Your task to perform on an android device: install app "Google Find My Device" Image 0: 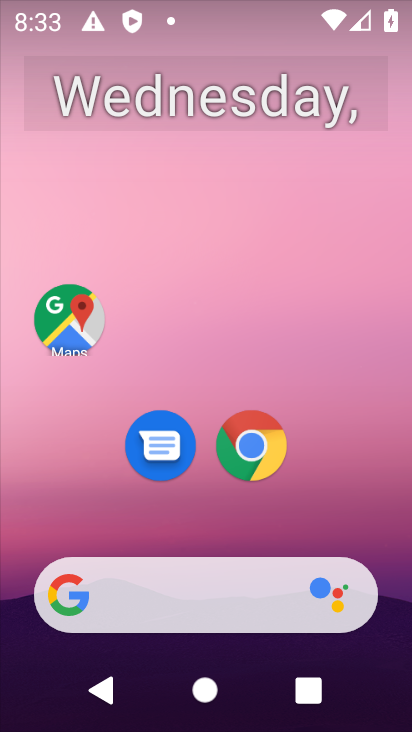
Step 0: drag from (157, 587) to (206, 161)
Your task to perform on an android device: install app "Google Find My Device" Image 1: 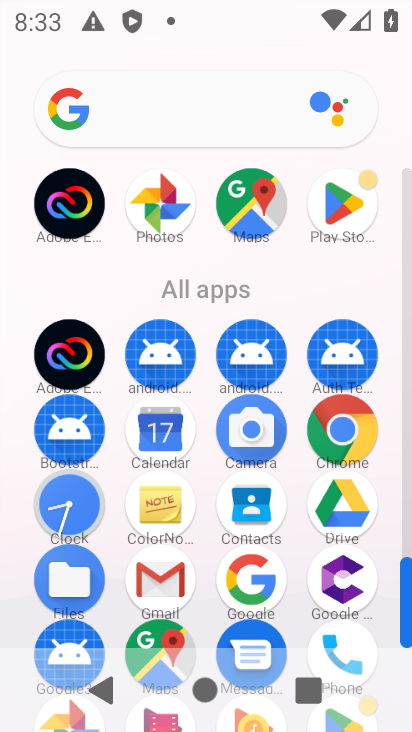
Step 1: click (351, 202)
Your task to perform on an android device: install app "Google Find My Device" Image 2: 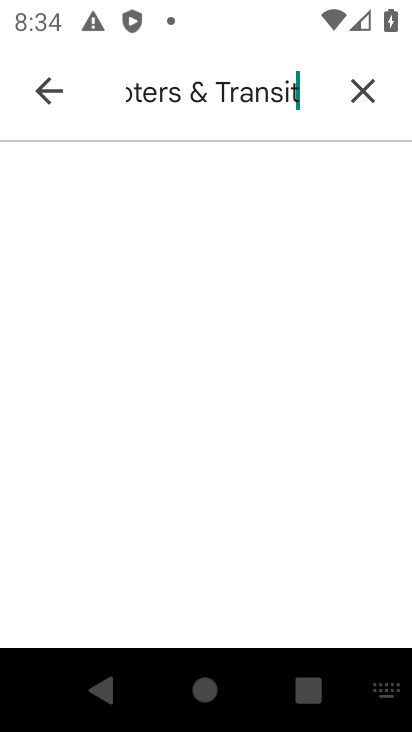
Step 2: click (366, 98)
Your task to perform on an android device: install app "Google Find My Device" Image 3: 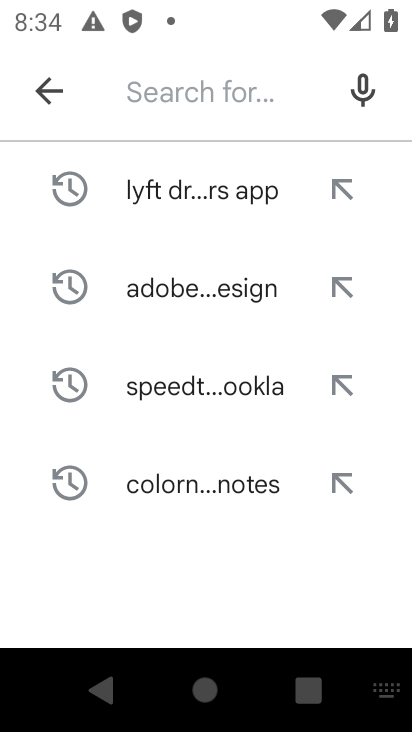
Step 3: click (216, 112)
Your task to perform on an android device: install app "Google Find My Device" Image 4: 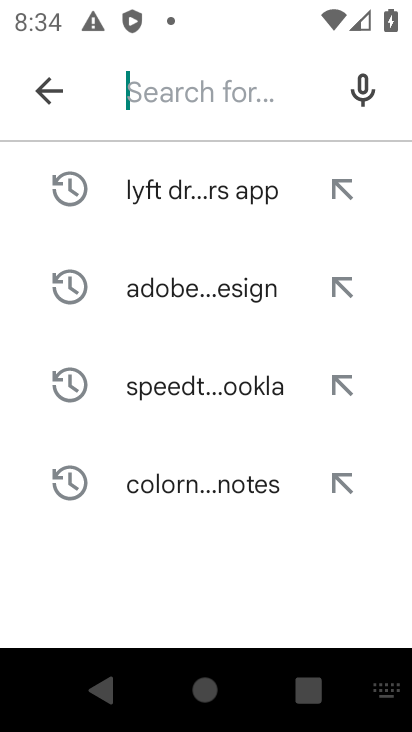
Step 4: type "Google Find My Device"
Your task to perform on an android device: install app "Google Find My Device" Image 5: 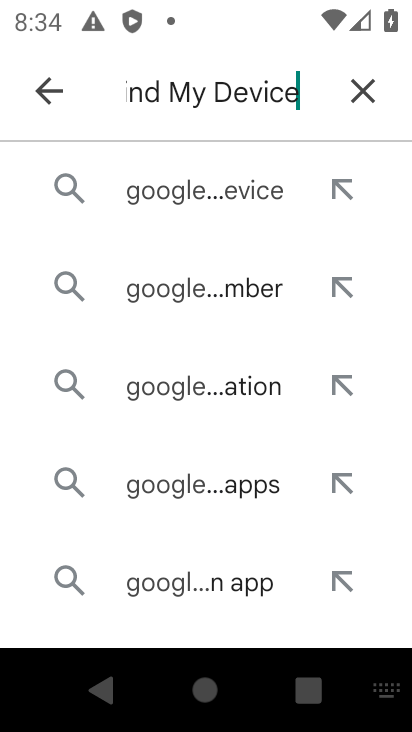
Step 5: click (237, 195)
Your task to perform on an android device: install app "Google Find My Device" Image 6: 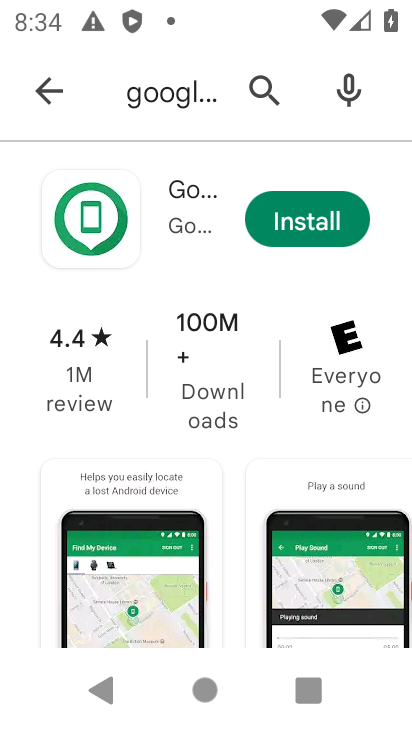
Step 6: click (299, 220)
Your task to perform on an android device: install app "Google Find My Device" Image 7: 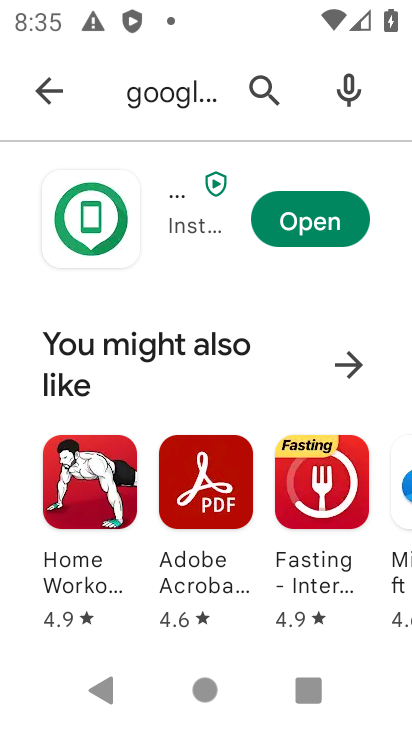
Step 7: task complete